Your task to perform on an android device: change the clock display to show seconds Image 0: 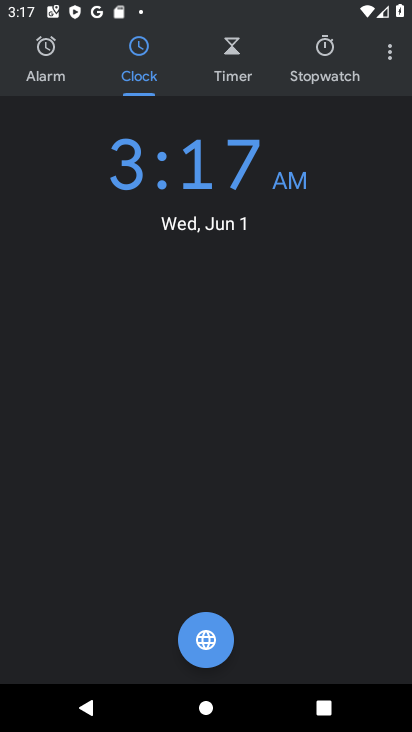
Step 0: click (383, 51)
Your task to perform on an android device: change the clock display to show seconds Image 1: 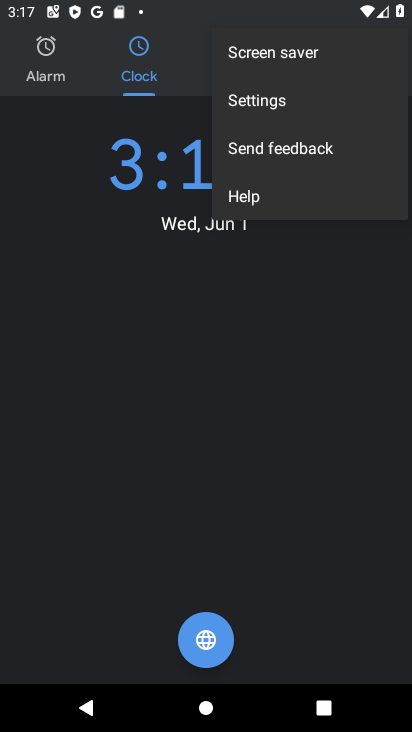
Step 1: click (359, 90)
Your task to perform on an android device: change the clock display to show seconds Image 2: 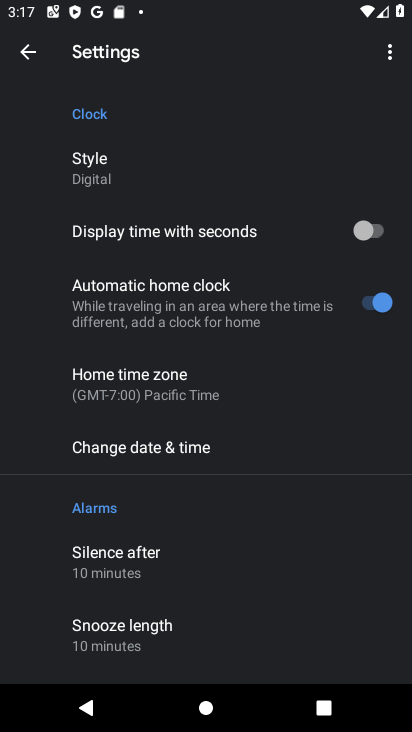
Step 2: click (399, 243)
Your task to perform on an android device: change the clock display to show seconds Image 3: 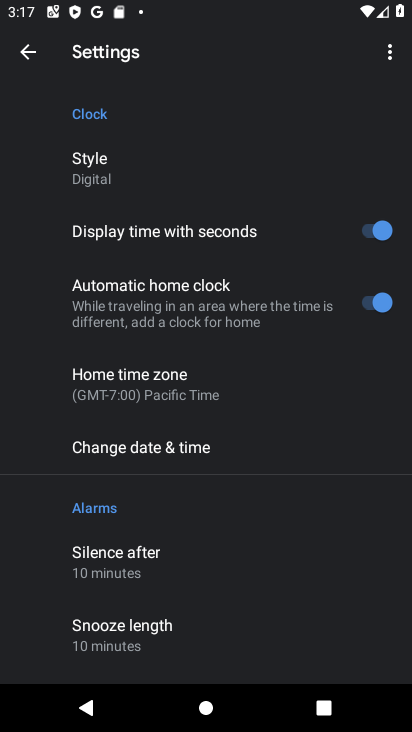
Step 3: task complete